Your task to perform on an android device: Open Amazon Image 0: 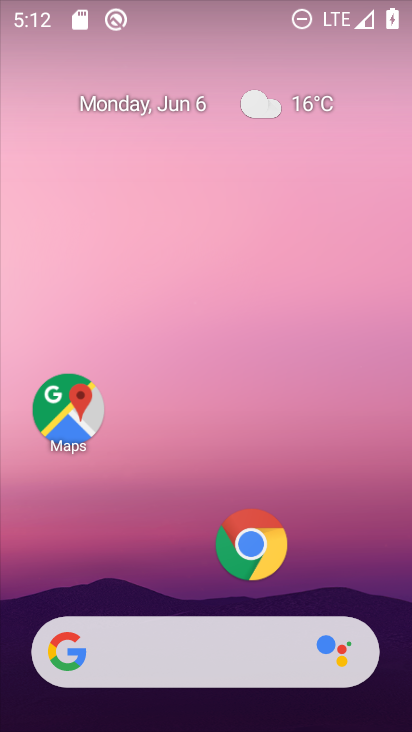
Step 0: press home button
Your task to perform on an android device: Open Amazon Image 1: 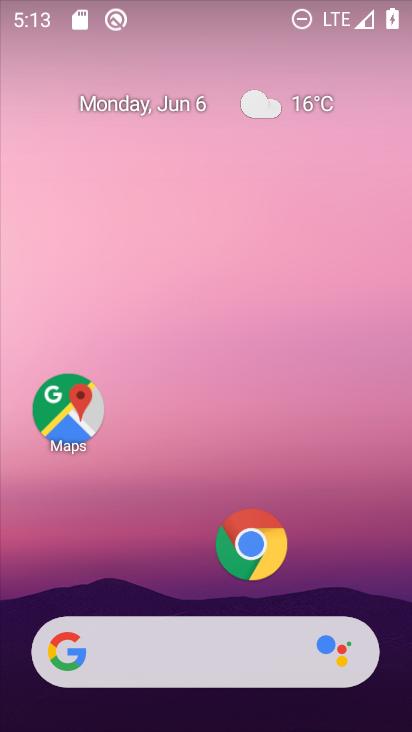
Step 1: click (251, 533)
Your task to perform on an android device: Open Amazon Image 2: 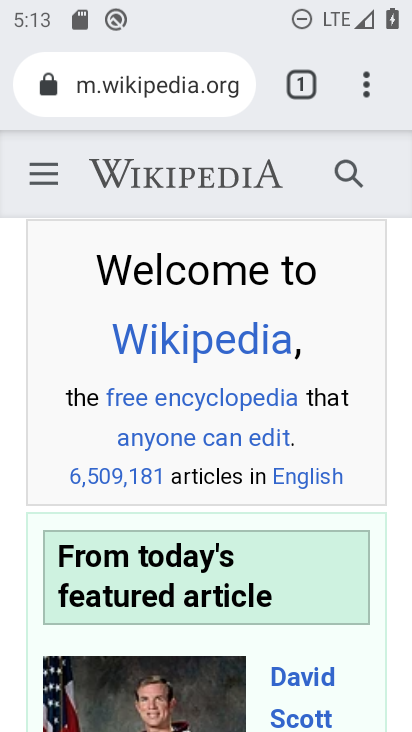
Step 2: click (305, 82)
Your task to perform on an android device: Open Amazon Image 3: 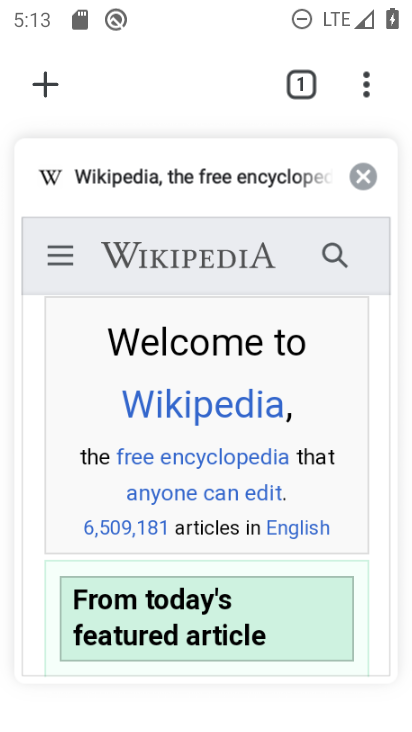
Step 3: click (53, 83)
Your task to perform on an android device: Open Amazon Image 4: 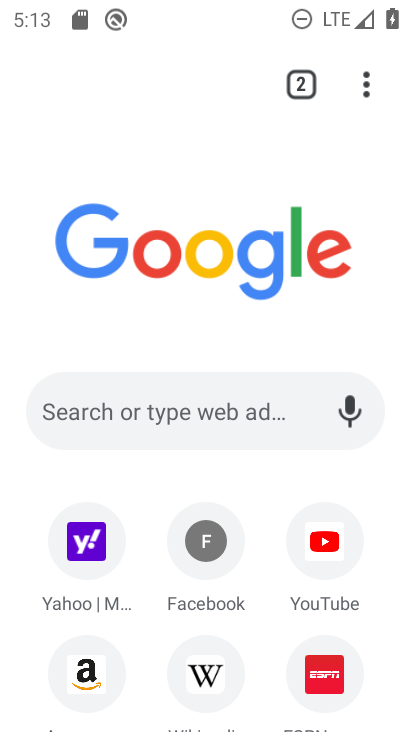
Step 4: drag from (265, 498) to (270, 112)
Your task to perform on an android device: Open Amazon Image 5: 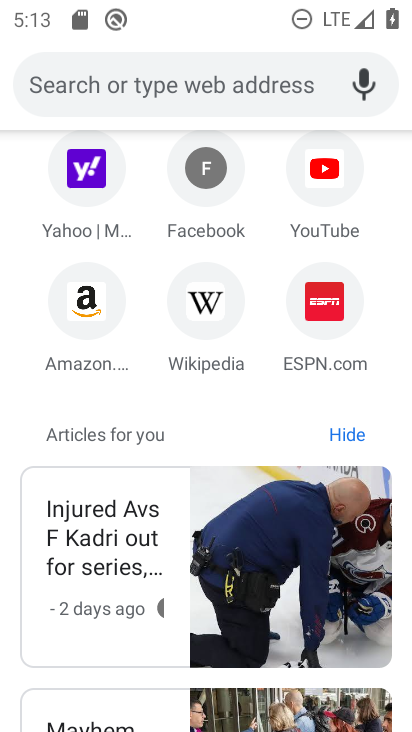
Step 5: click (85, 291)
Your task to perform on an android device: Open Amazon Image 6: 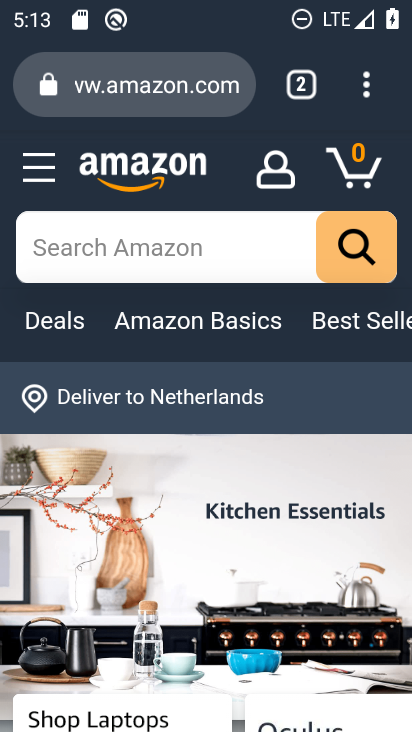
Step 6: task complete